Your task to perform on an android device: turn on the 12-hour format for clock Image 0: 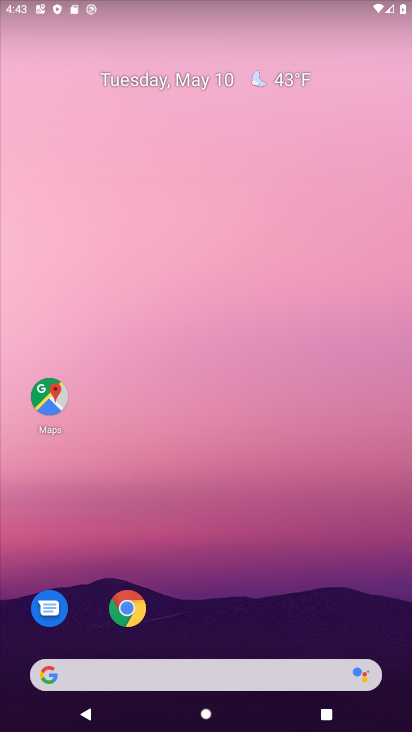
Step 0: drag from (219, 663) to (304, 66)
Your task to perform on an android device: turn on the 12-hour format for clock Image 1: 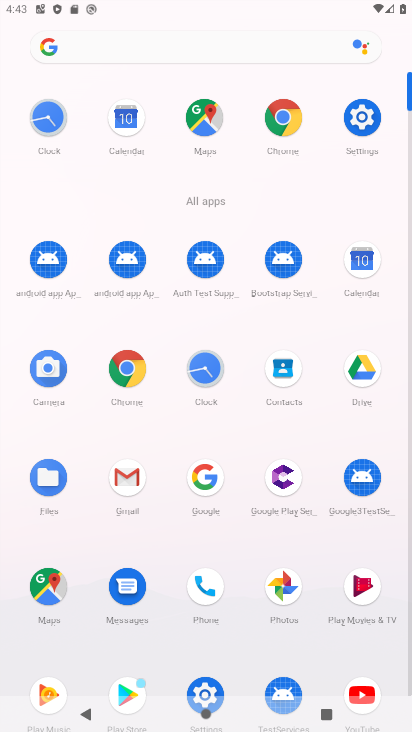
Step 1: click (215, 358)
Your task to perform on an android device: turn on the 12-hour format for clock Image 2: 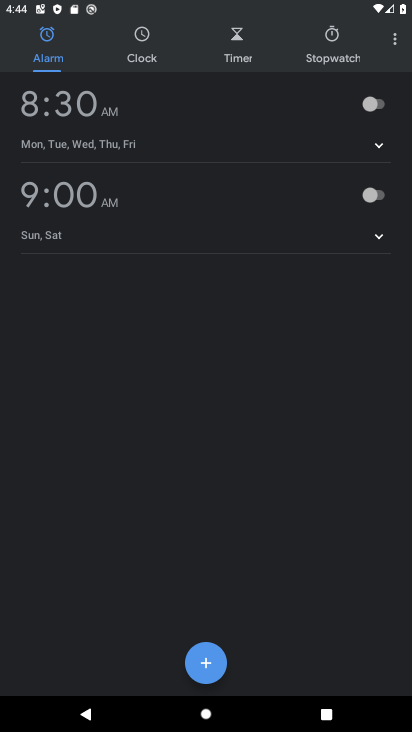
Step 2: click (140, 45)
Your task to perform on an android device: turn on the 12-hour format for clock Image 3: 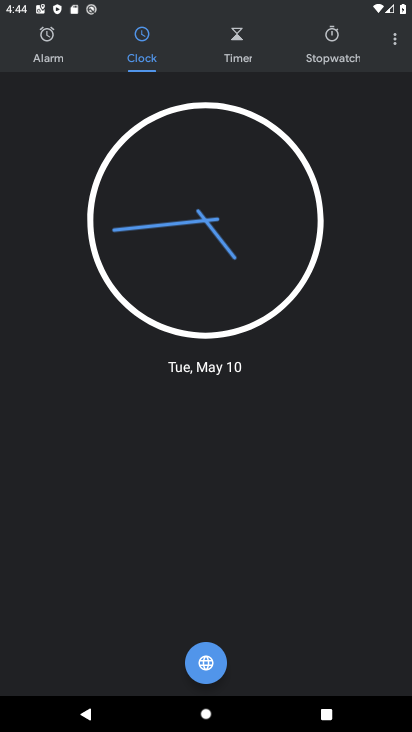
Step 3: click (382, 42)
Your task to perform on an android device: turn on the 12-hour format for clock Image 4: 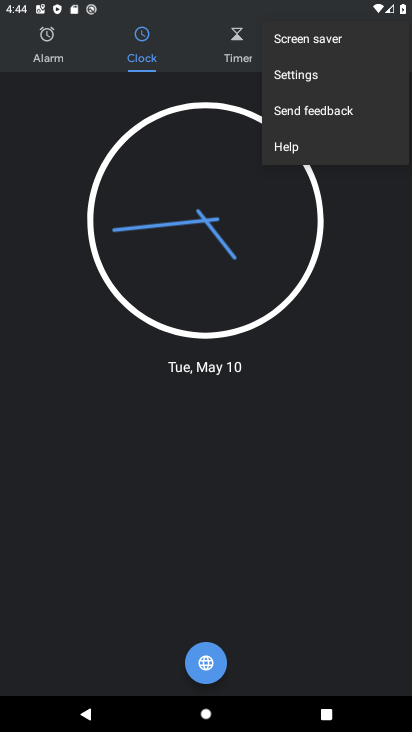
Step 4: click (308, 73)
Your task to perform on an android device: turn on the 12-hour format for clock Image 5: 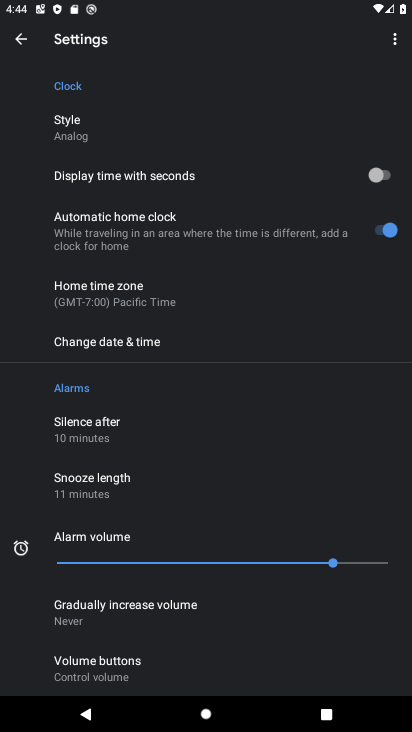
Step 5: drag from (230, 600) to (289, 149)
Your task to perform on an android device: turn on the 12-hour format for clock Image 6: 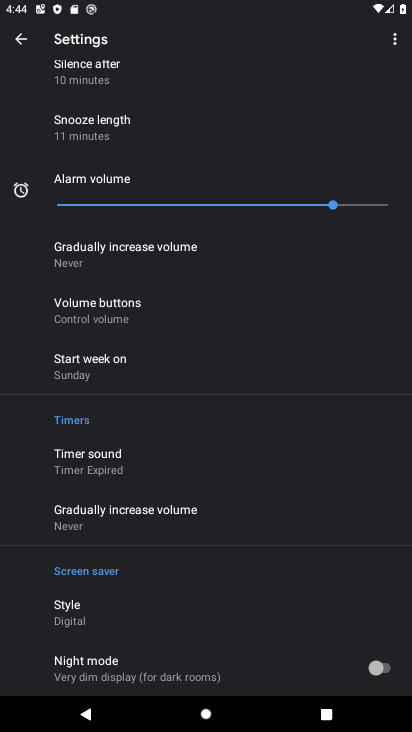
Step 6: drag from (110, 610) to (249, 133)
Your task to perform on an android device: turn on the 12-hour format for clock Image 7: 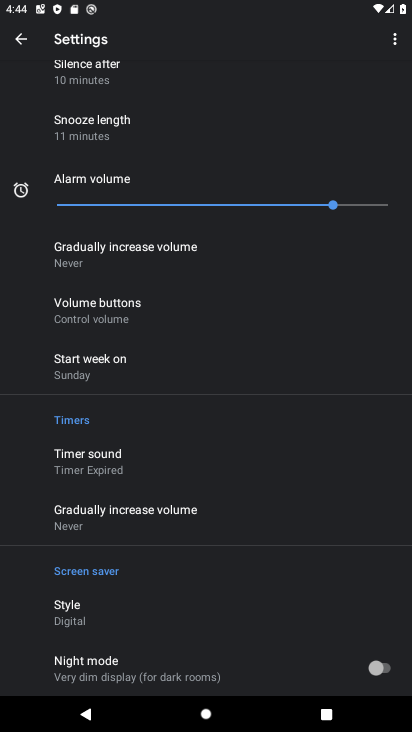
Step 7: drag from (176, 252) to (142, 666)
Your task to perform on an android device: turn on the 12-hour format for clock Image 8: 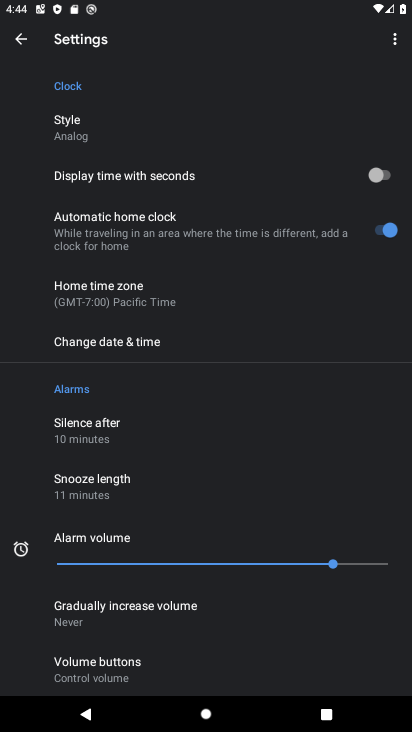
Step 8: click (125, 343)
Your task to perform on an android device: turn on the 12-hour format for clock Image 9: 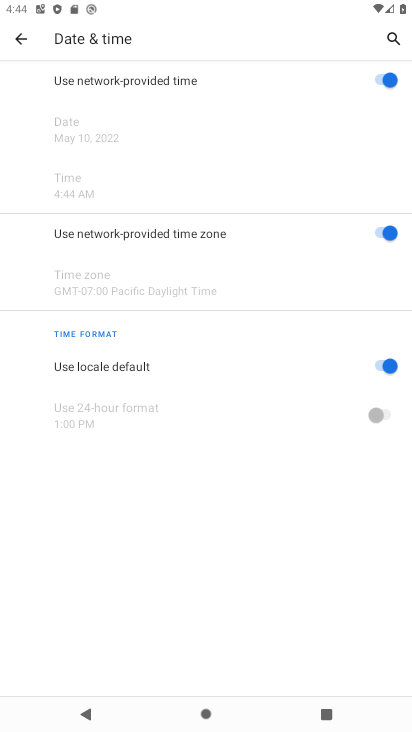
Step 9: task complete